Your task to perform on an android device: choose inbox layout in the gmail app Image 0: 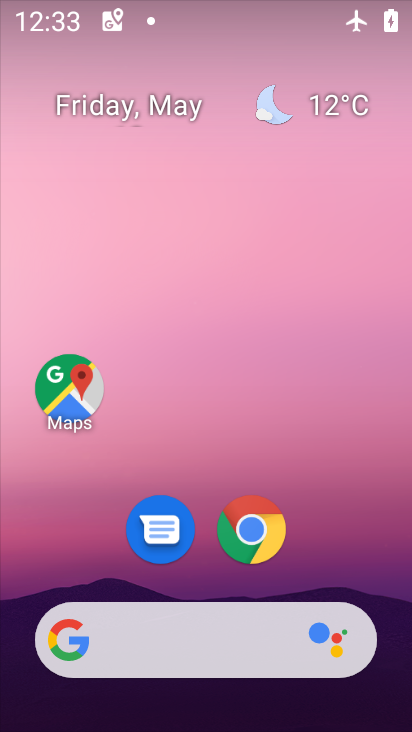
Step 0: drag from (301, 314) to (287, 171)
Your task to perform on an android device: choose inbox layout in the gmail app Image 1: 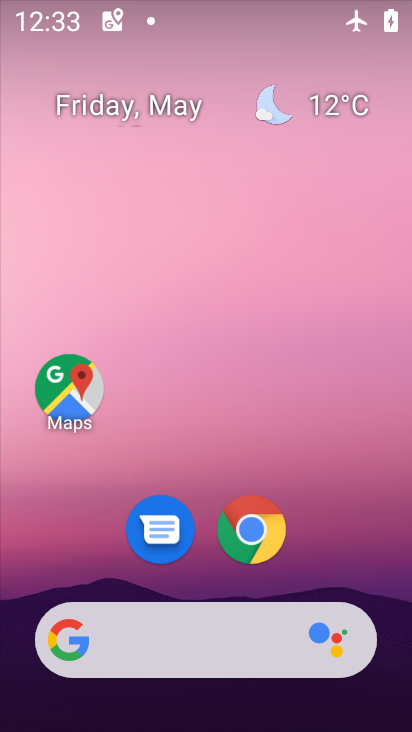
Step 1: drag from (307, 438) to (289, 221)
Your task to perform on an android device: choose inbox layout in the gmail app Image 2: 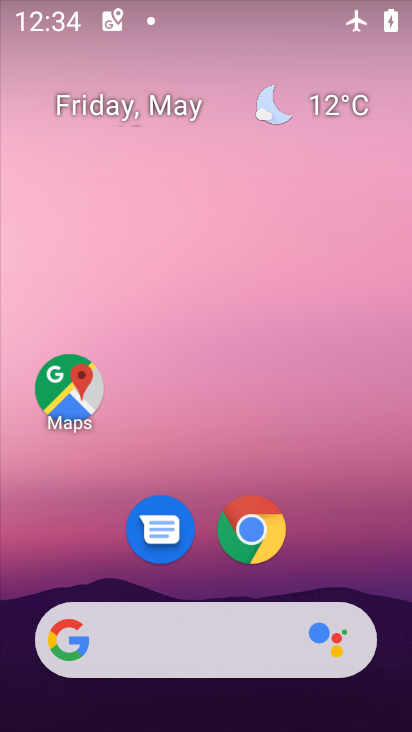
Step 2: drag from (331, 556) to (316, 179)
Your task to perform on an android device: choose inbox layout in the gmail app Image 3: 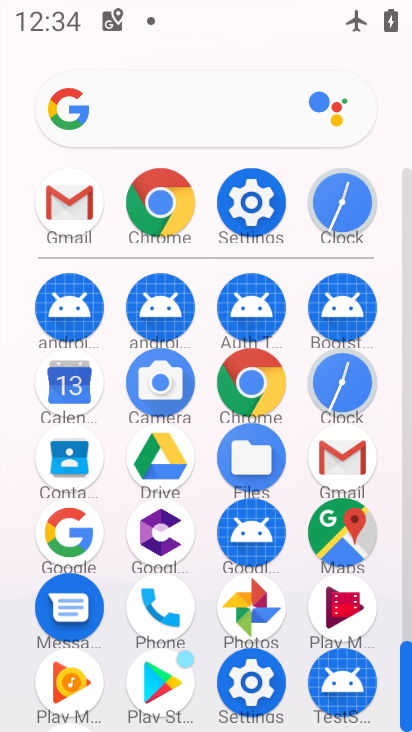
Step 3: click (54, 187)
Your task to perform on an android device: choose inbox layout in the gmail app Image 4: 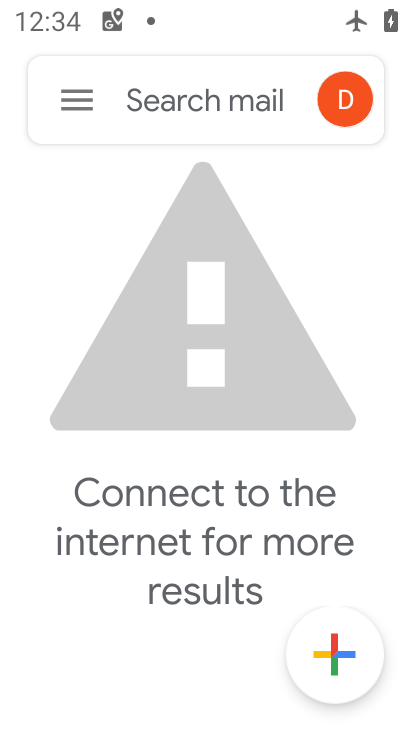
Step 4: click (69, 93)
Your task to perform on an android device: choose inbox layout in the gmail app Image 5: 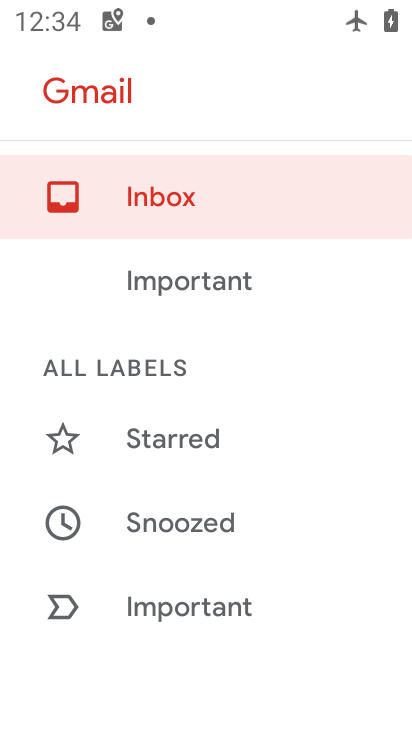
Step 5: drag from (270, 606) to (274, 161)
Your task to perform on an android device: choose inbox layout in the gmail app Image 6: 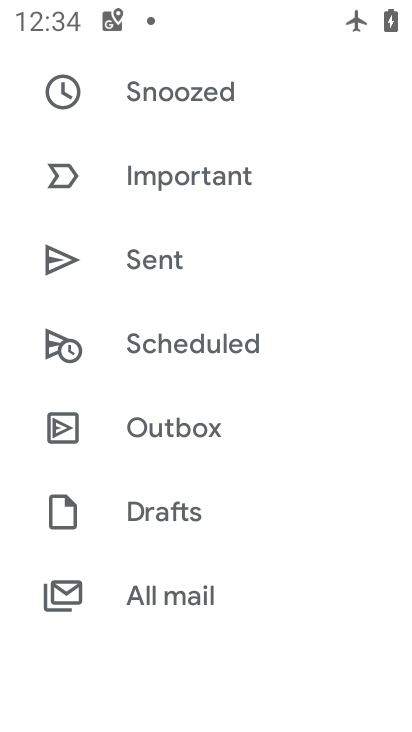
Step 6: drag from (237, 571) to (249, 332)
Your task to perform on an android device: choose inbox layout in the gmail app Image 7: 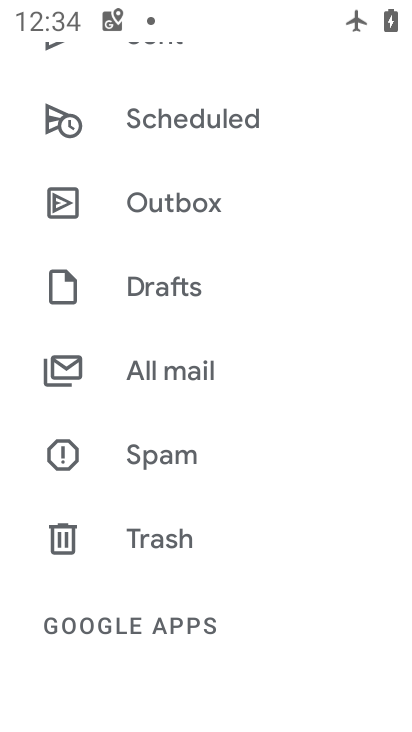
Step 7: drag from (246, 497) to (273, 306)
Your task to perform on an android device: choose inbox layout in the gmail app Image 8: 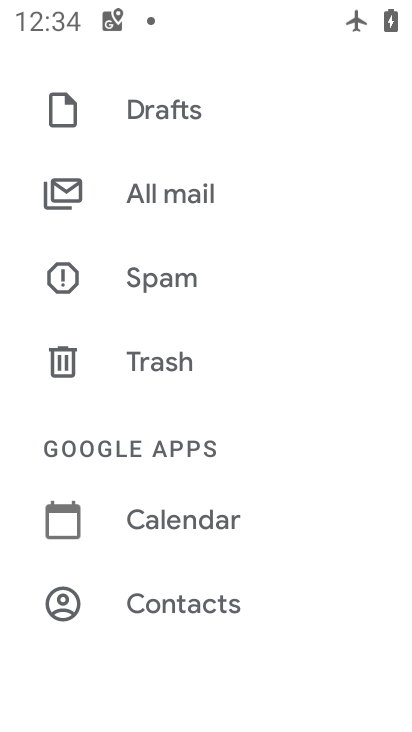
Step 8: drag from (256, 399) to (261, 317)
Your task to perform on an android device: choose inbox layout in the gmail app Image 9: 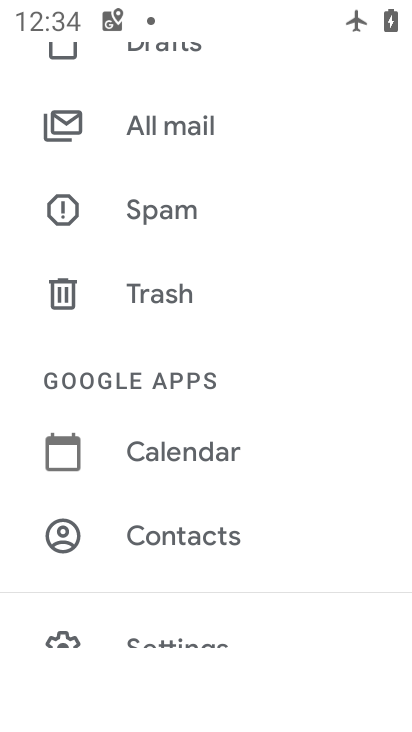
Step 9: drag from (258, 518) to (278, 367)
Your task to perform on an android device: choose inbox layout in the gmail app Image 10: 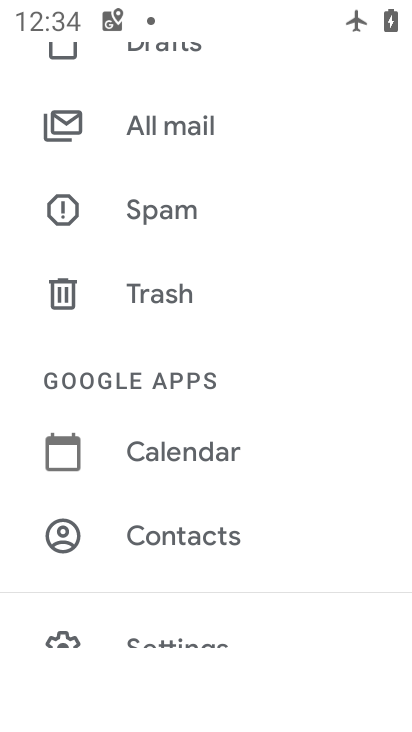
Step 10: drag from (224, 614) to (274, 357)
Your task to perform on an android device: choose inbox layout in the gmail app Image 11: 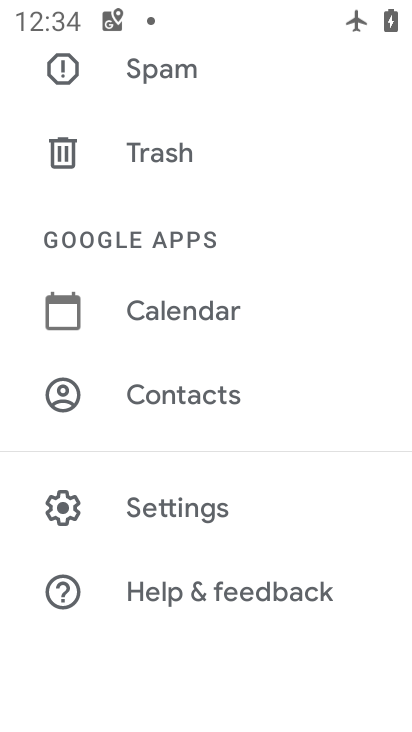
Step 11: click (202, 504)
Your task to perform on an android device: choose inbox layout in the gmail app Image 12: 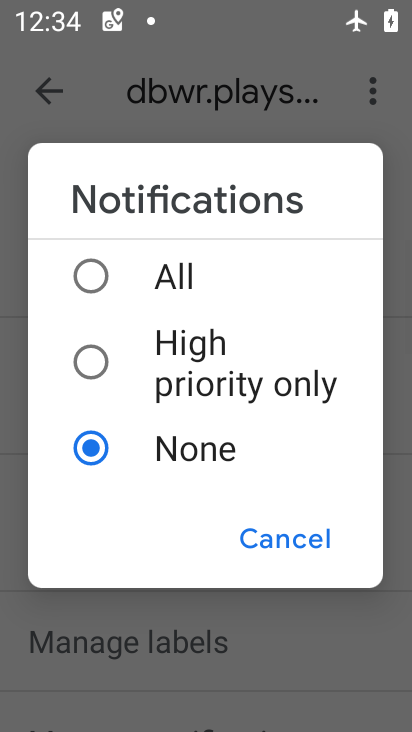
Step 12: click (273, 533)
Your task to perform on an android device: choose inbox layout in the gmail app Image 13: 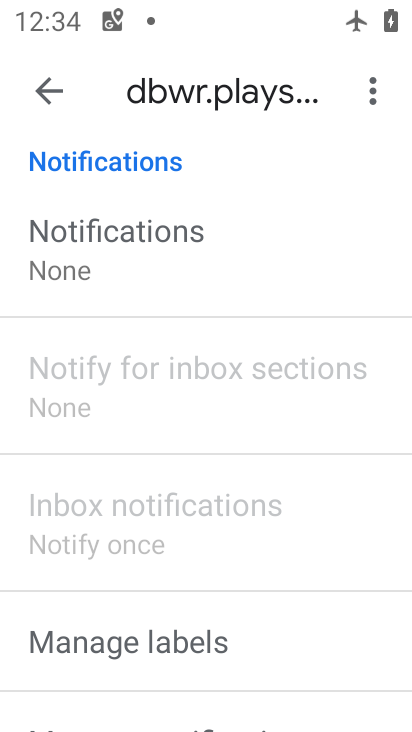
Step 13: drag from (208, 267) to (184, 598)
Your task to perform on an android device: choose inbox layout in the gmail app Image 14: 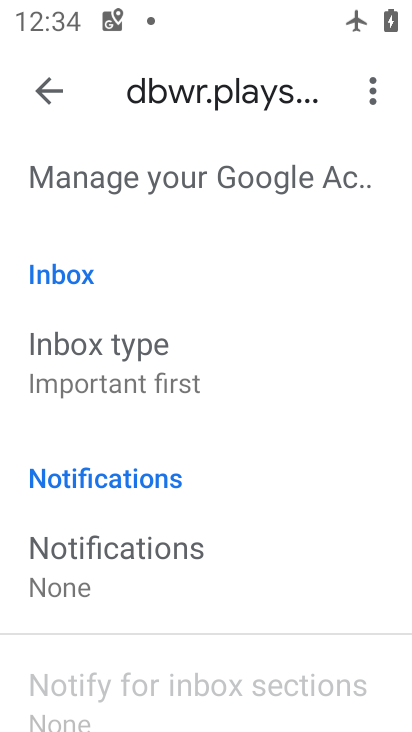
Step 14: click (141, 365)
Your task to perform on an android device: choose inbox layout in the gmail app Image 15: 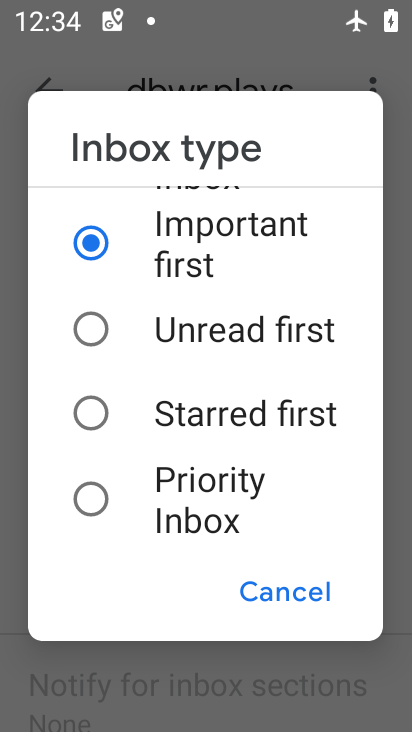
Step 15: click (218, 502)
Your task to perform on an android device: choose inbox layout in the gmail app Image 16: 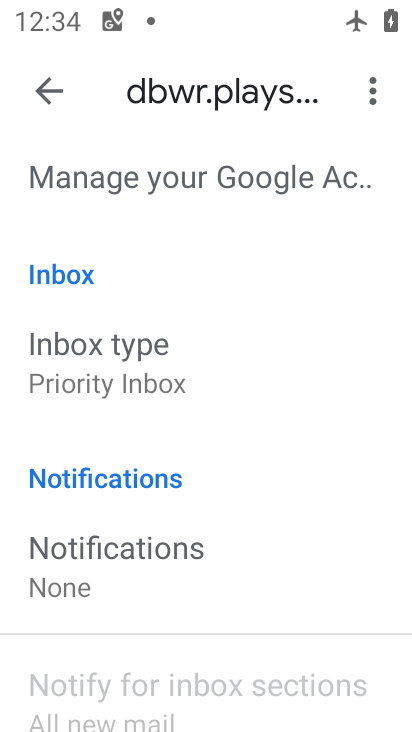
Step 16: click (116, 339)
Your task to perform on an android device: choose inbox layout in the gmail app Image 17: 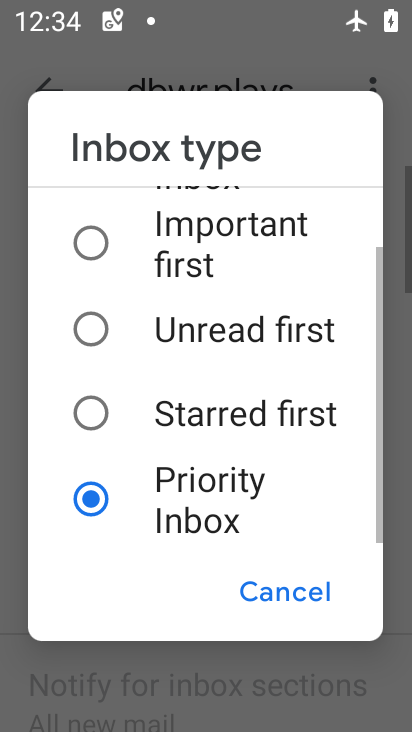
Step 17: click (180, 324)
Your task to perform on an android device: choose inbox layout in the gmail app Image 18: 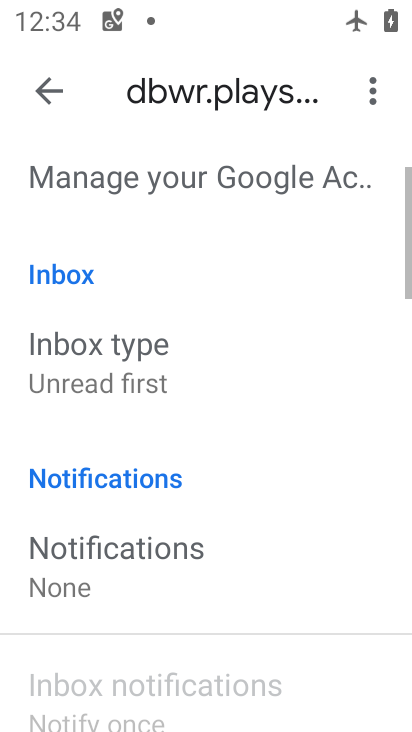
Step 18: task complete